Your task to perform on an android device: Open display settings Image 0: 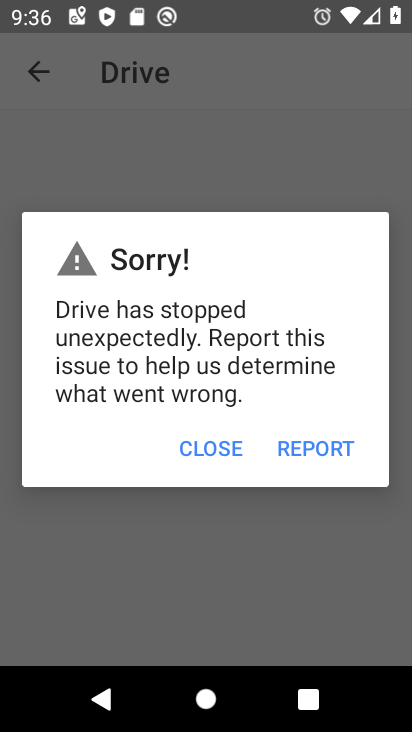
Step 0: press home button
Your task to perform on an android device: Open display settings Image 1: 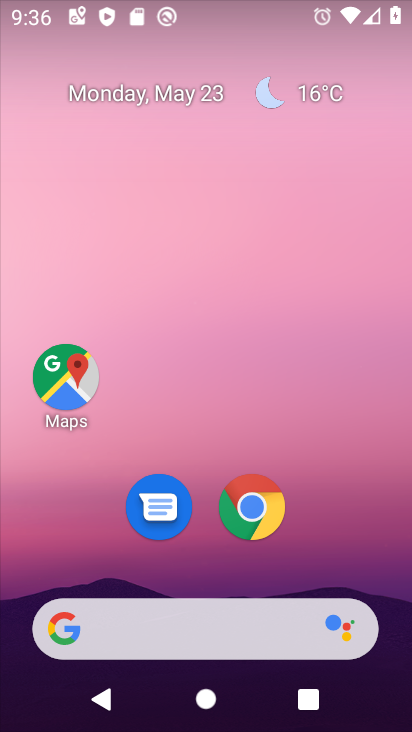
Step 1: drag from (355, 439) to (348, 3)
Your task to perform on an android device: Open display settings Image 2: 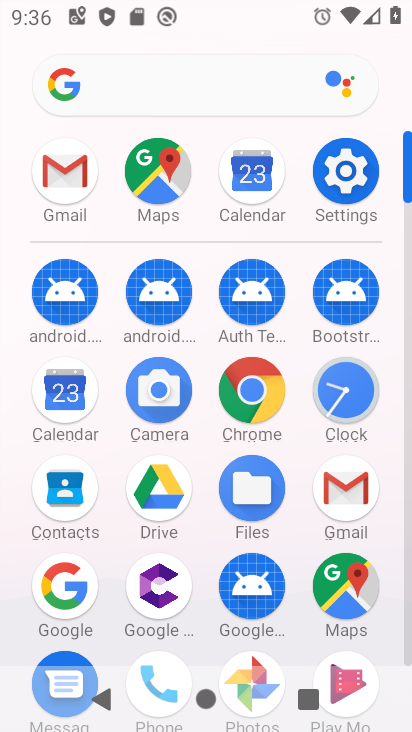
Step 2: click (357, 164)
Your task to perform on an android device: Open display settings Image 3: 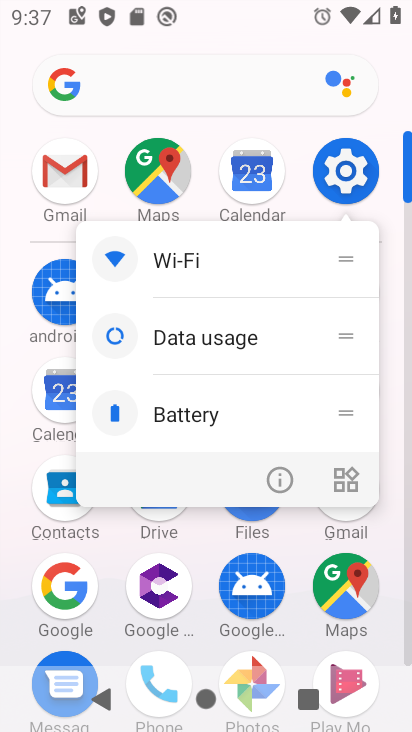
Step 3: click (354, 174)
Your task to perform on an android device: Open display settings Image 4: 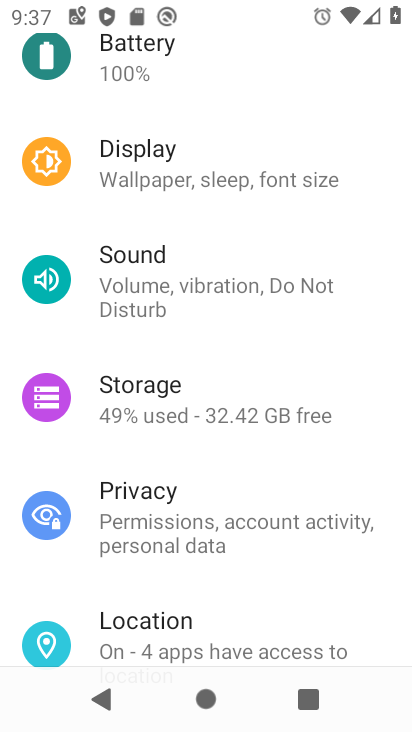
Step 4: click (152, 178)
Your task to perform on an android device: Open display settings Image 5: 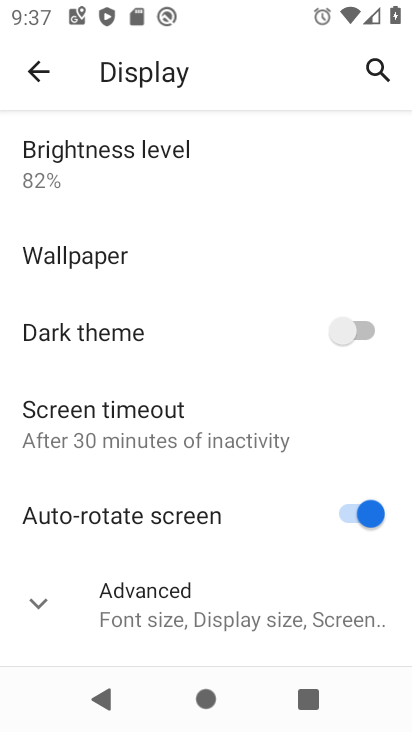
Step 5: task complete